Your task to perform on an android device: Open the web browser Image 0: 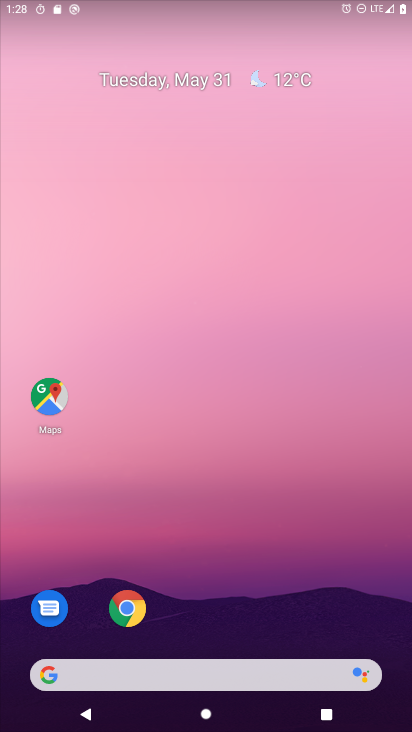
Step 0: click (130, 612)
Your task to perform on an android device: Open the web browser Image 1: 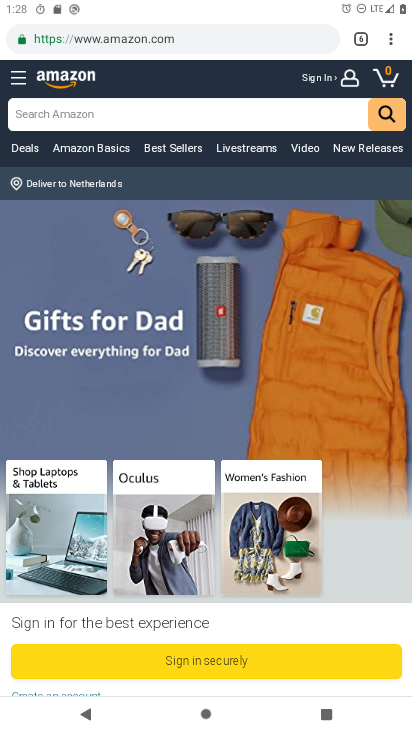
Step 1: task complete